Your task to perform on an android device: check google app version Image 0: 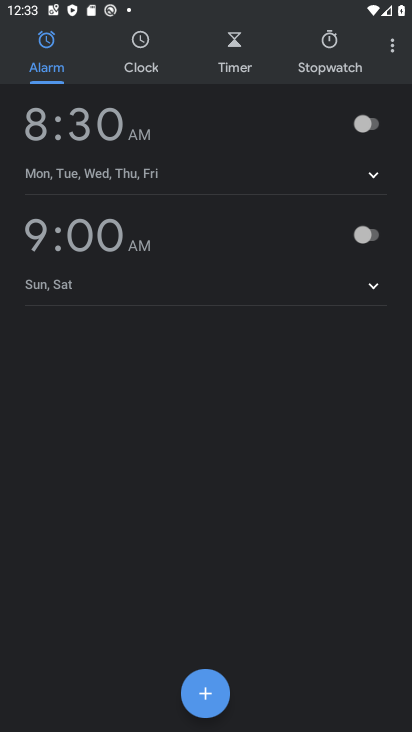
Step 0: press home button
Your task to perform on an android device: check google app version Image 1: 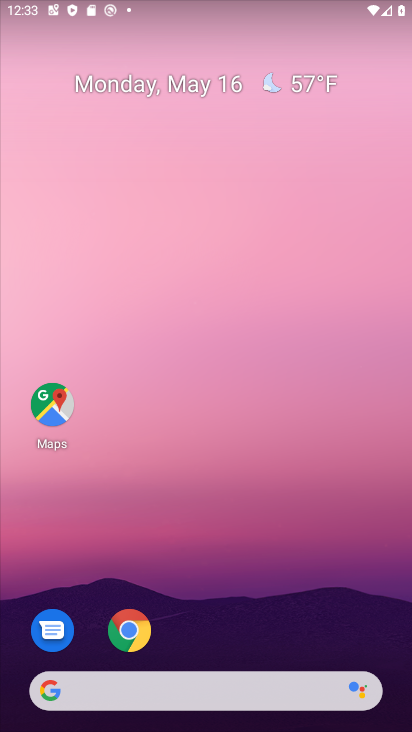
Step 1: drag from (218, 664) to (279, 79)
Your task to perform on an android device: check google app version Image 2: 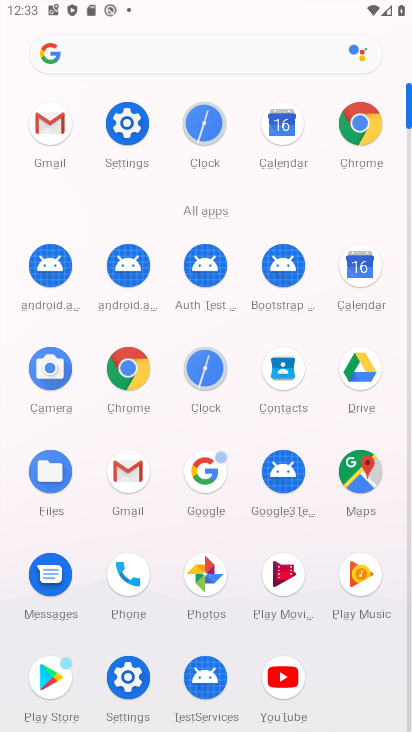
Step 2: click (208, 473)
Your task to perform on an android device: check google app version Image 3: 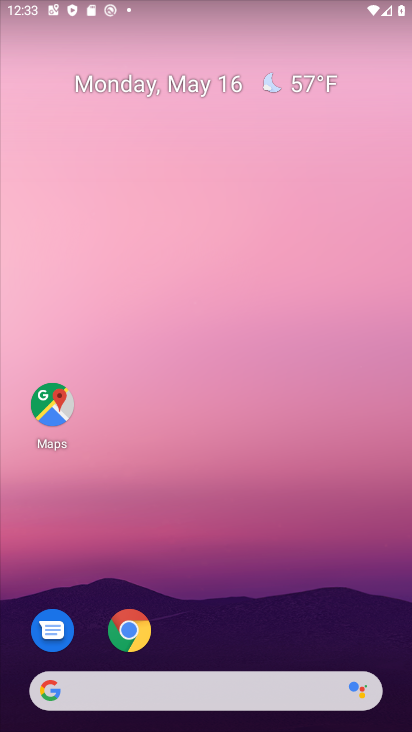
Step 3: drag from (175, 666) to (247, 218)
Your task to perform on an android device: check google app version Image 4: 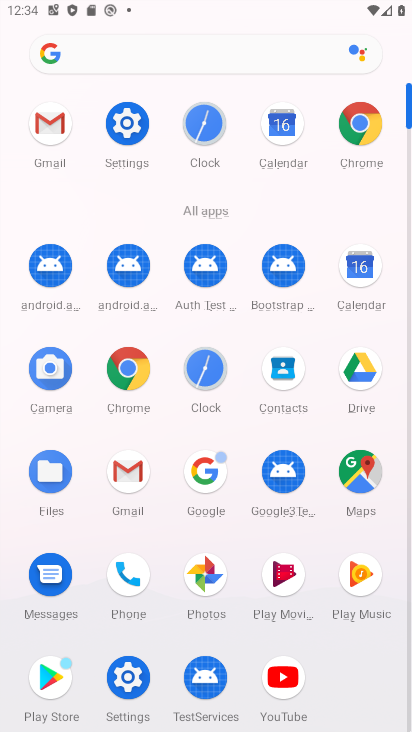
Step 4: drag from (203, 470) to (306, 192)
Your task to perform on an android device: check google app version Image 5: 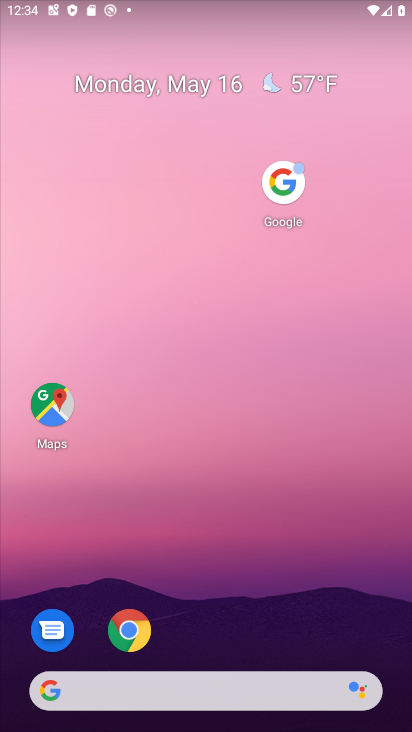
Step 5: click (282, 184)
Your task to perform on an android device: check google app version Image 6: 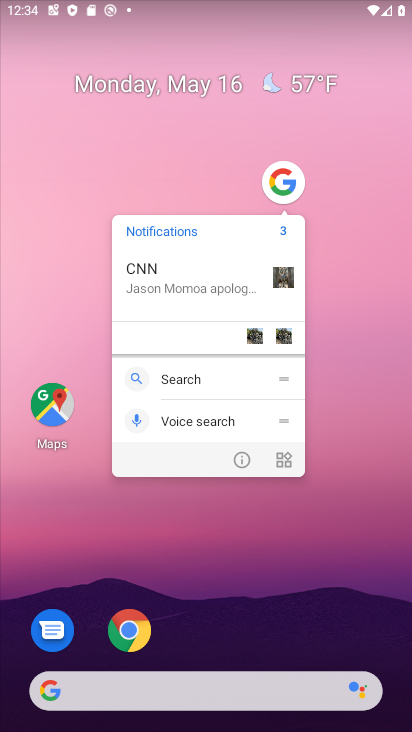
Step 6: click (241, 461)
Your task to perform on an android device: check google app version Image 7: 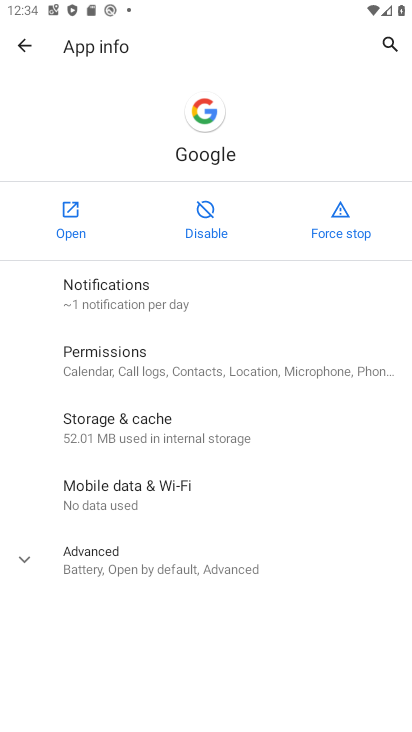
Step 7: click (153, 557)
Your task to perform on an android device: check google app version Image 8: 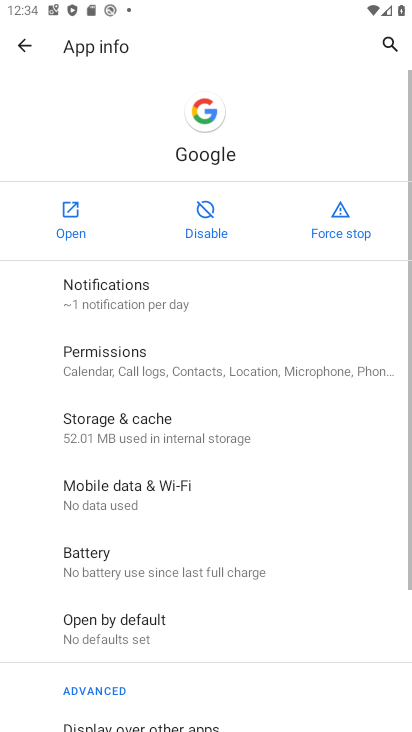
Step 8: task complete